Your task to perform on an android device: What's the news about the US stock market? Image 0: 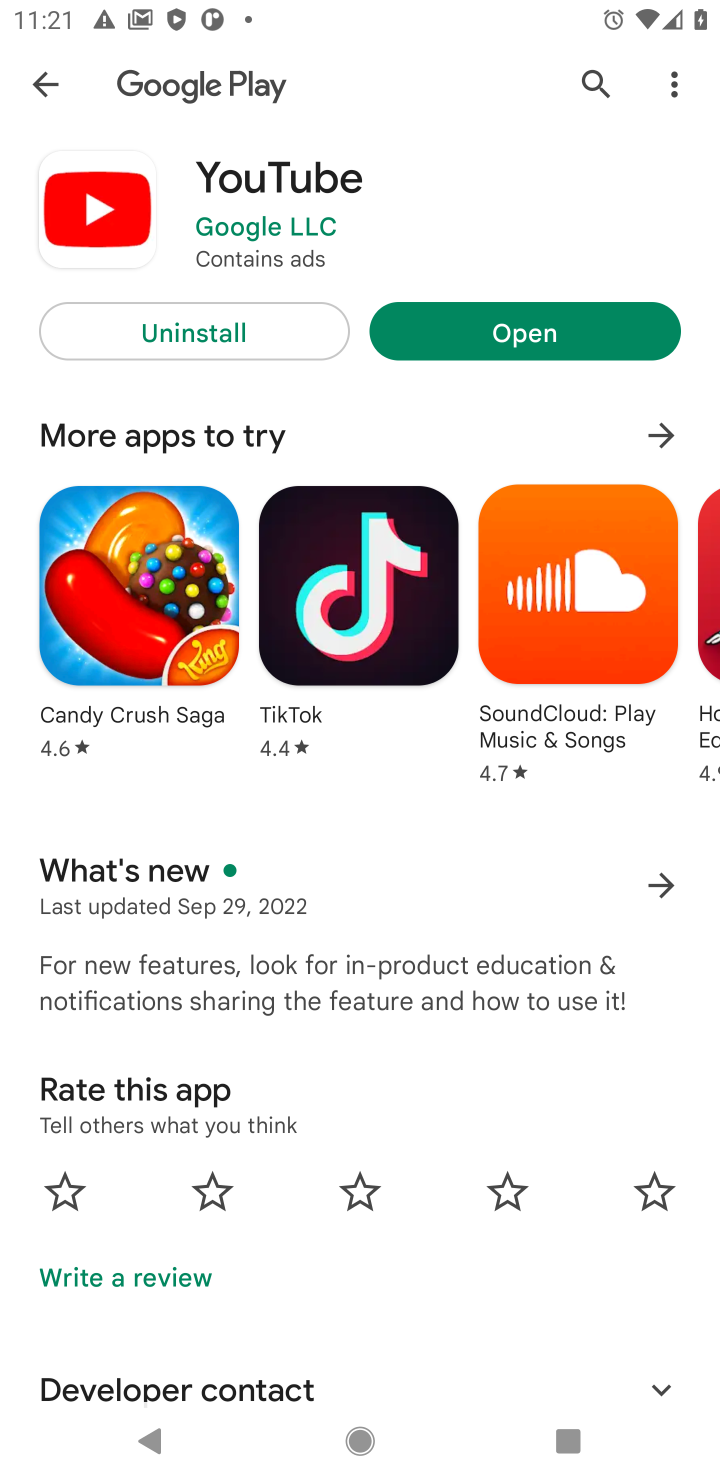
Step 0: press home button
Your task to perform on an android device: What's the news about the US stock market? Image 1: 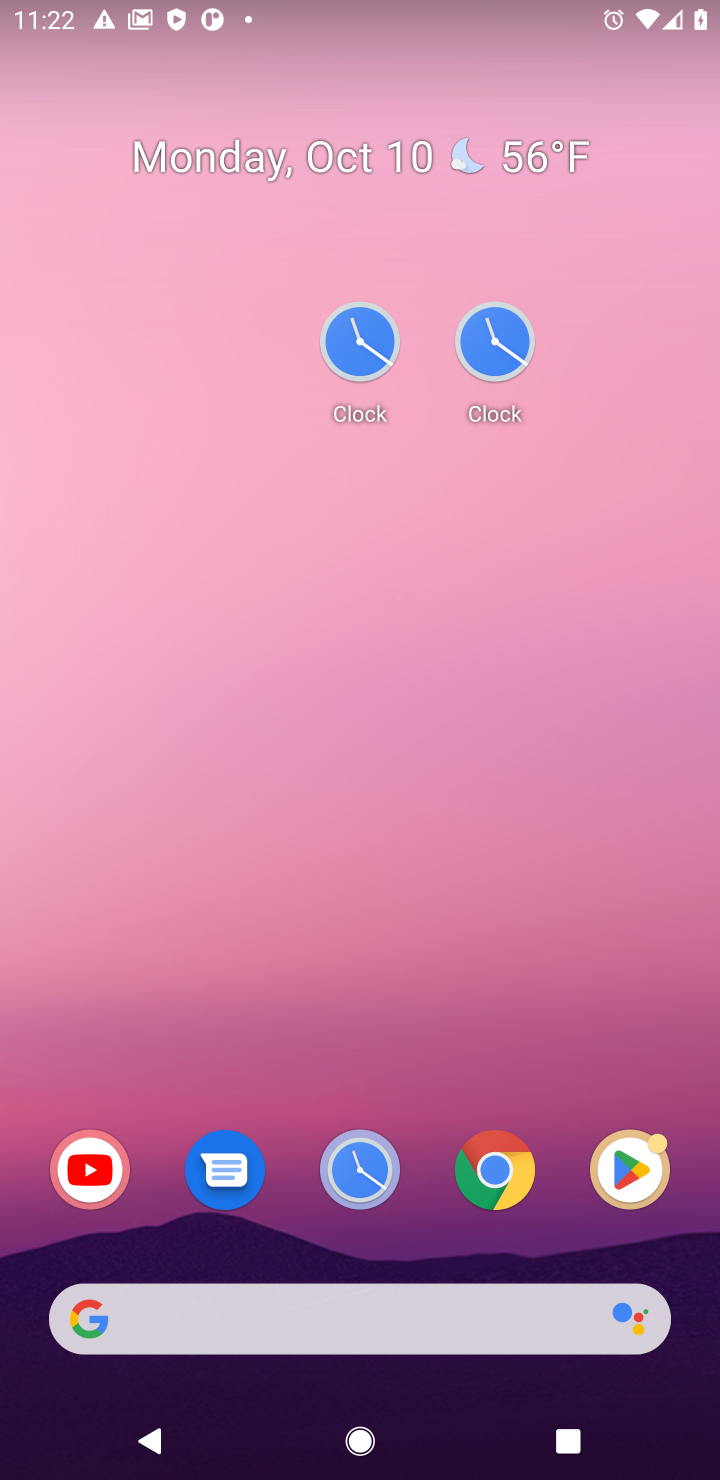
Step 1: click (512, 1173)
Your task to perform on an android device: What's the news about the US stock market? Image 2: 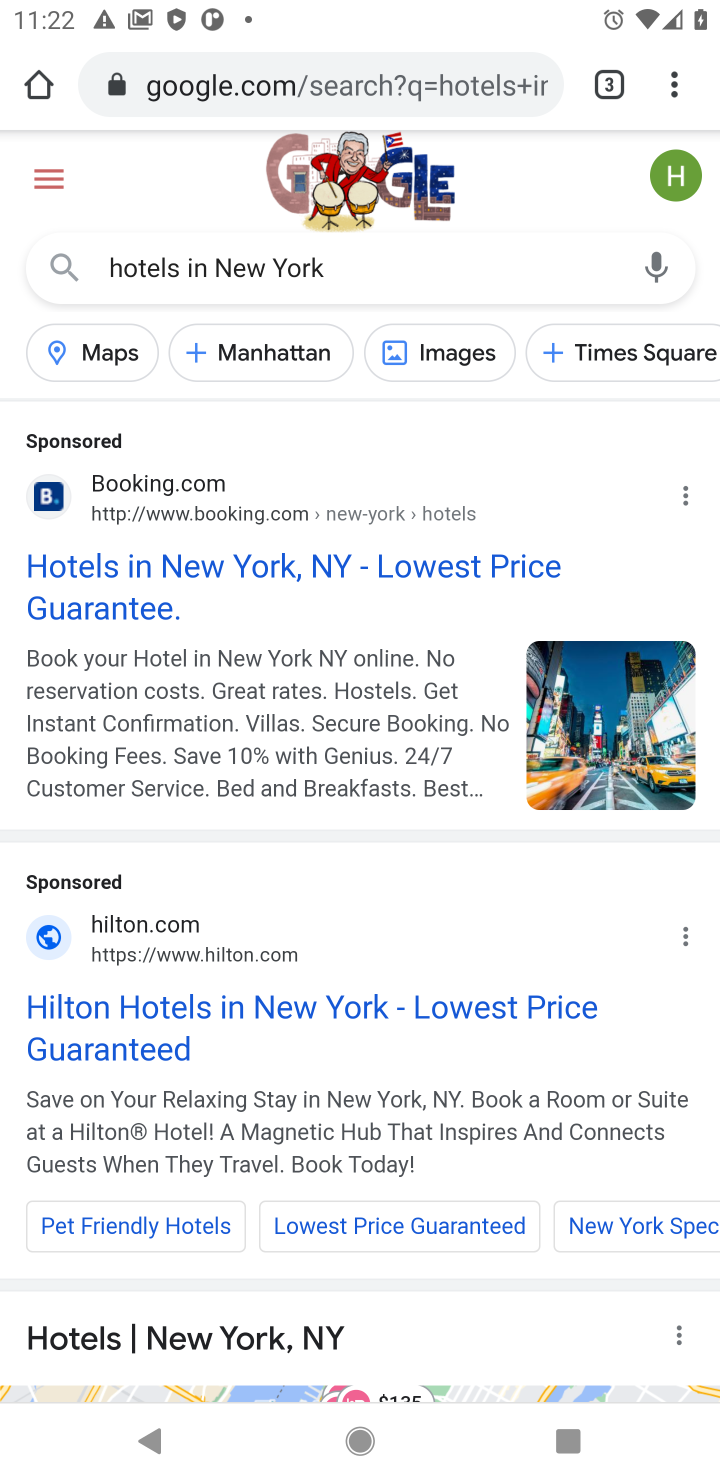
Step 2: click (466, 67)
Your task to perform on an android device: What's the news about the US stock market? Image 3: 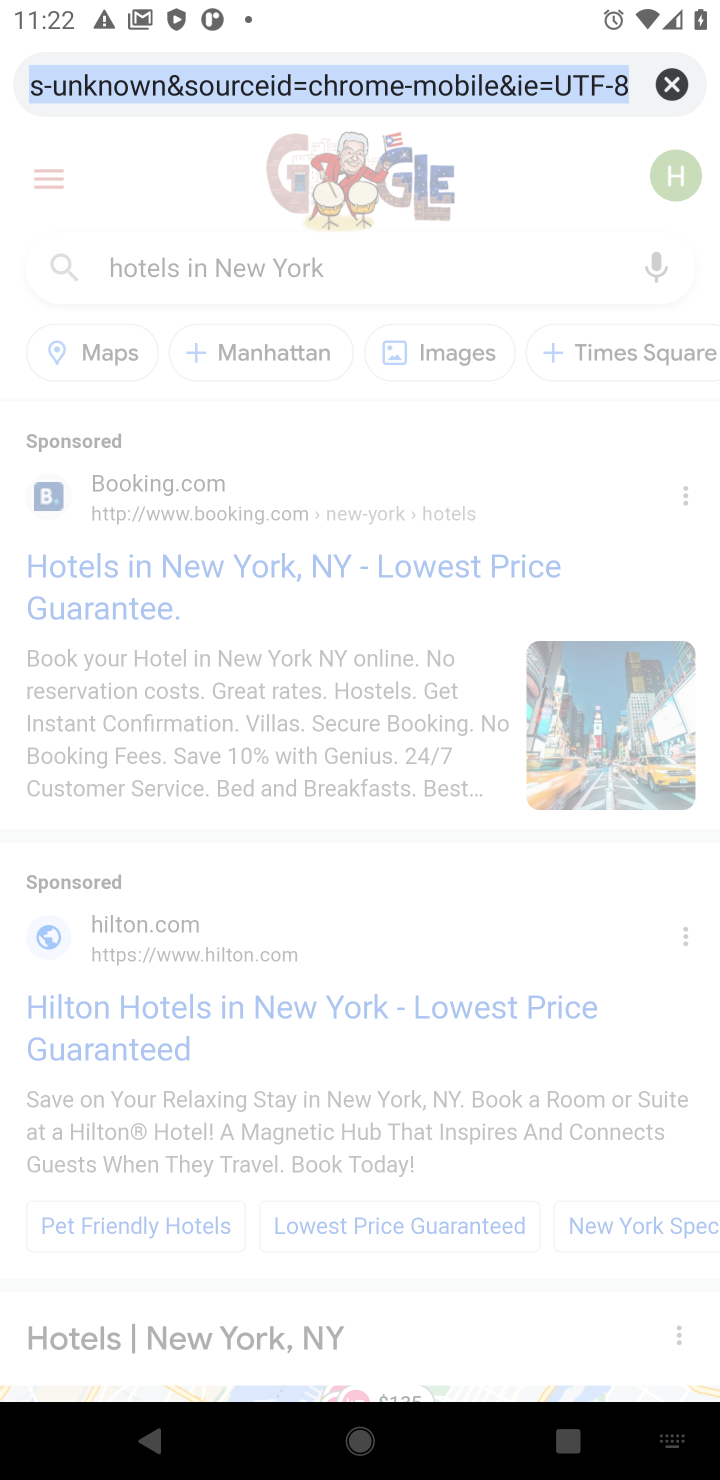
Step 3: type "news about the US stock market"
Your task to perform on an android device: What's the news about the US stock market? Image 4: 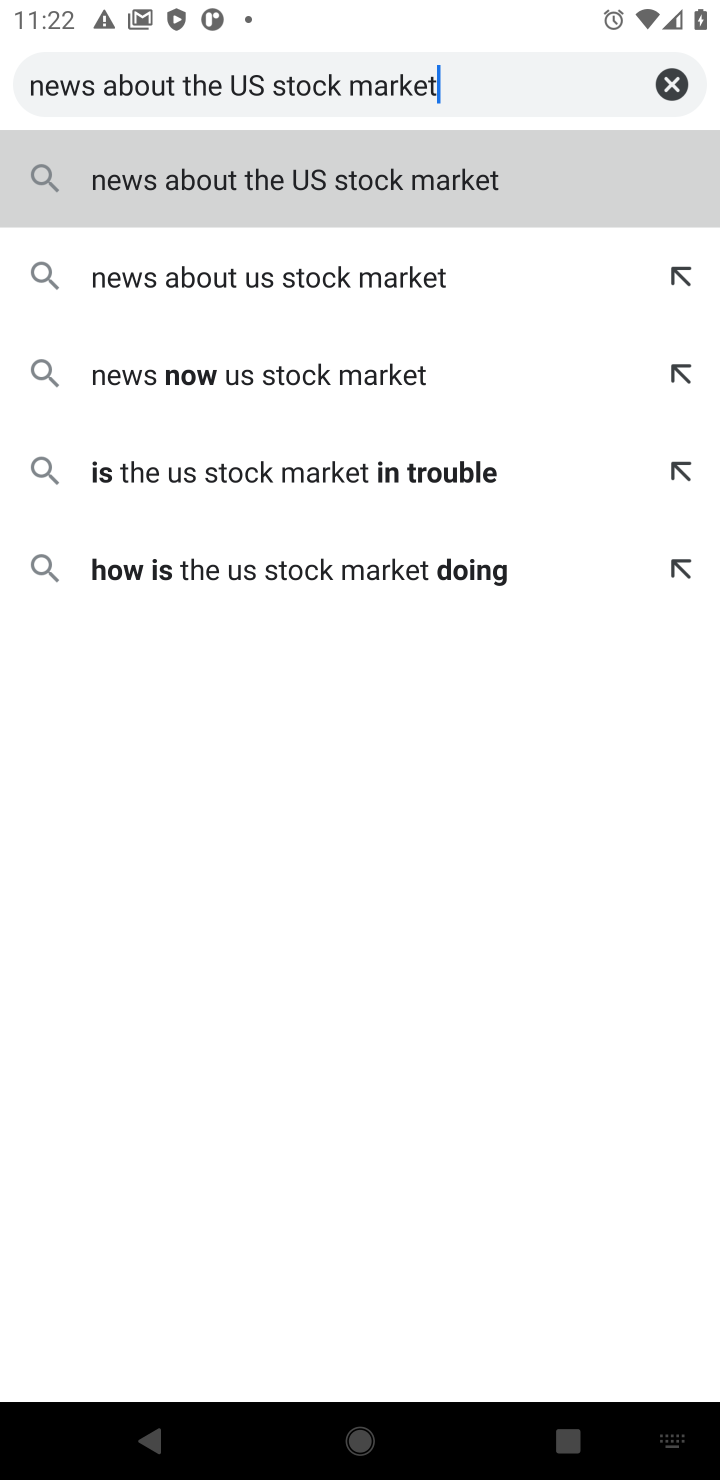
Step 4: click (410, 179)
Your task to perform on an android device: What's the news about the US stock market? Image 5: 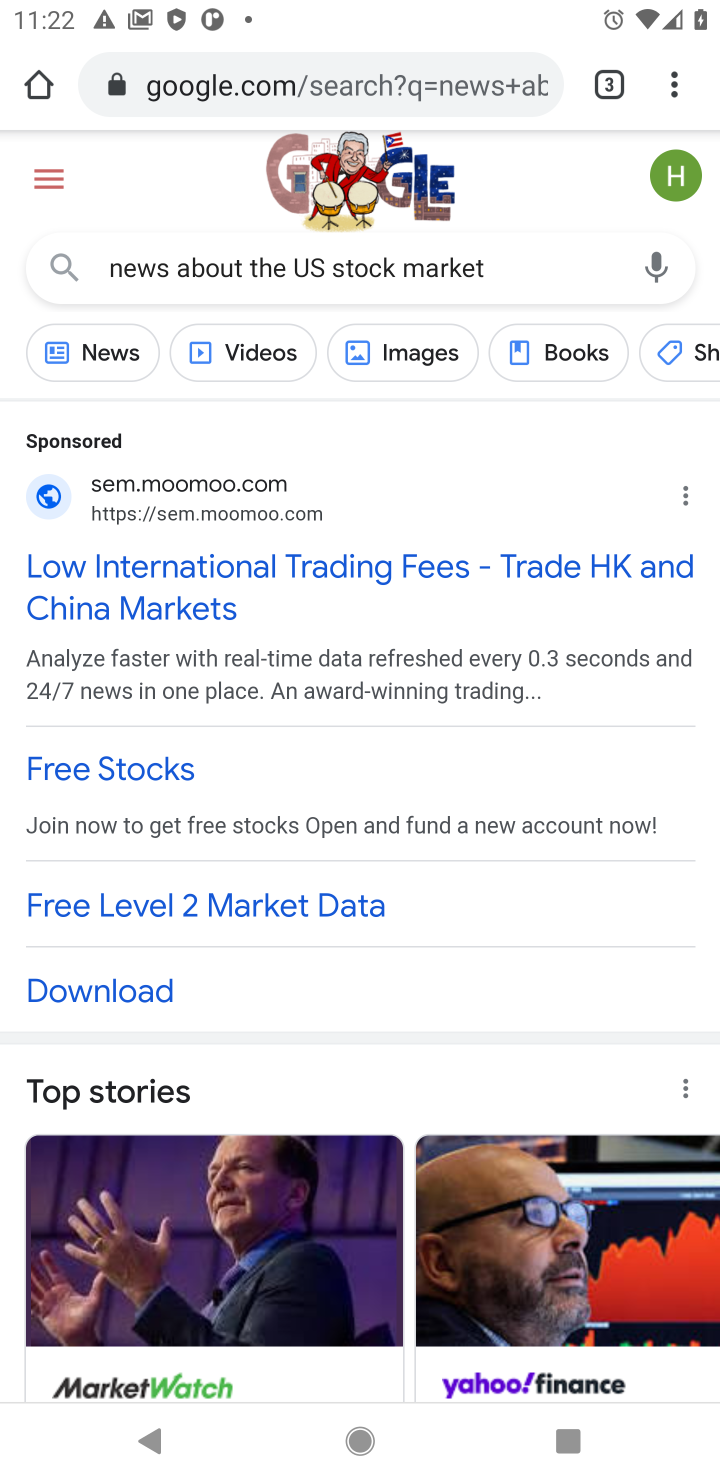
Step 5: task complete